Your task to perform on an android device: Open Wikipedia Image 0: 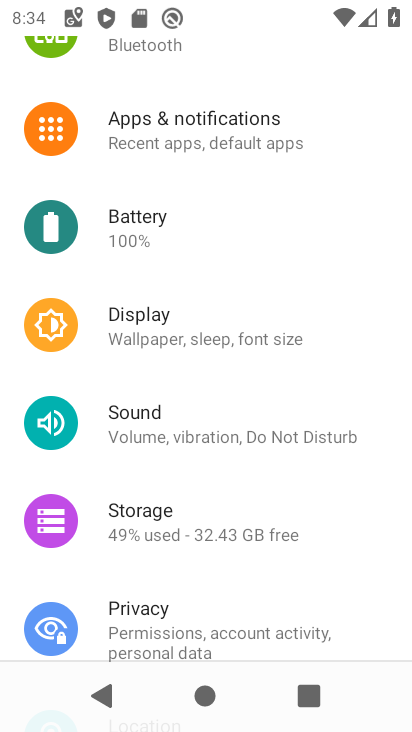
Step 0: press home button
Your task to perform on an android device: Open Wikipedia Image 1: 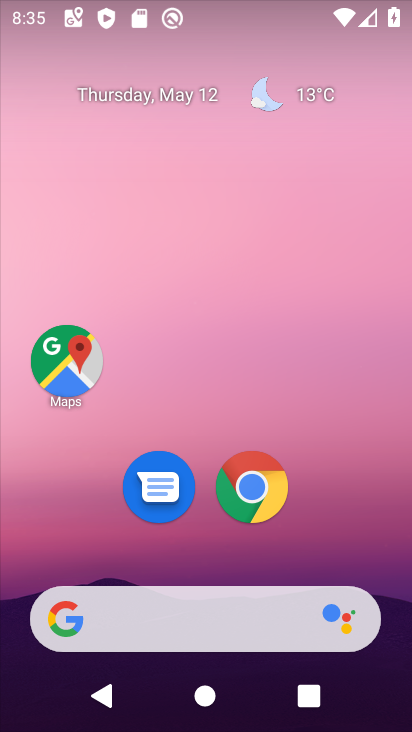
Step 1: click (259, 501)
Your task to perform on an android device: Open Wikipedia Image 2: 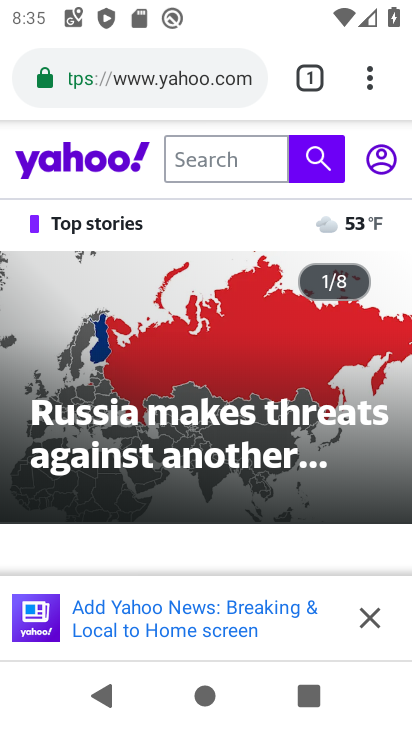
Step 2: click (121, 84)
Your task to perform on an android device: Open Wikipedia Image 3: 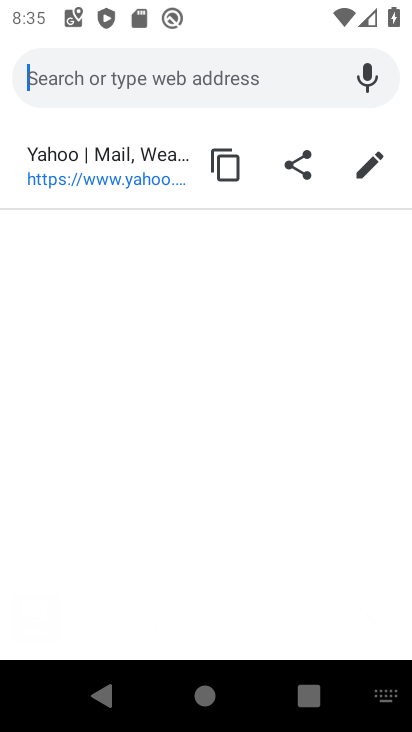
Step 3: type "wikipedia"
Your task to perform on an android device: Open Wikipedia Image 4: 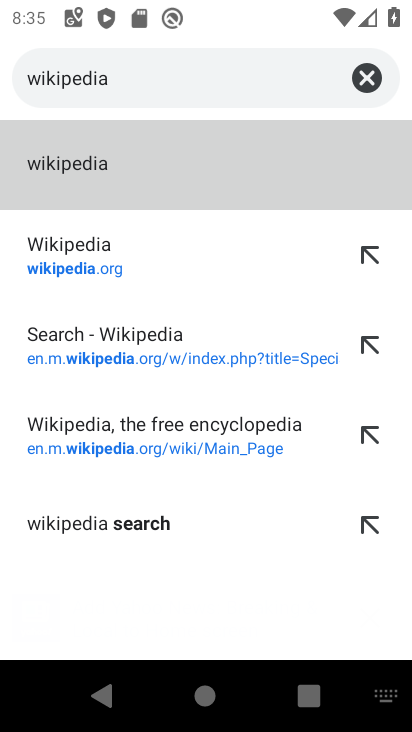
Step 4: click (50, 161)
Your task to perform on an android device: Open Wikipedia Image 5: 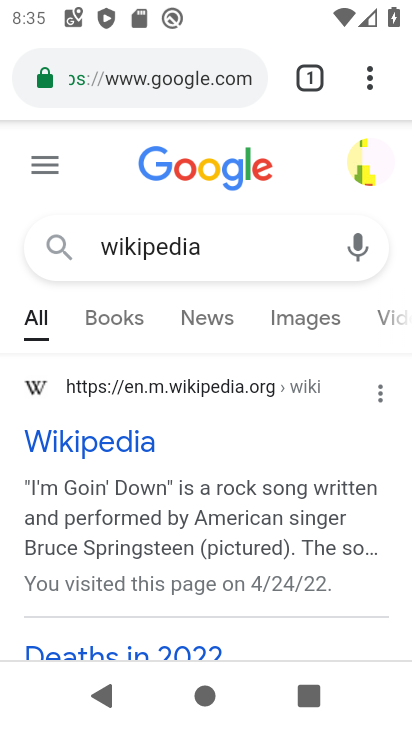
Step 5: click (101, 443)
Your task to perform on an android device: Open Wikipedia Image 6: 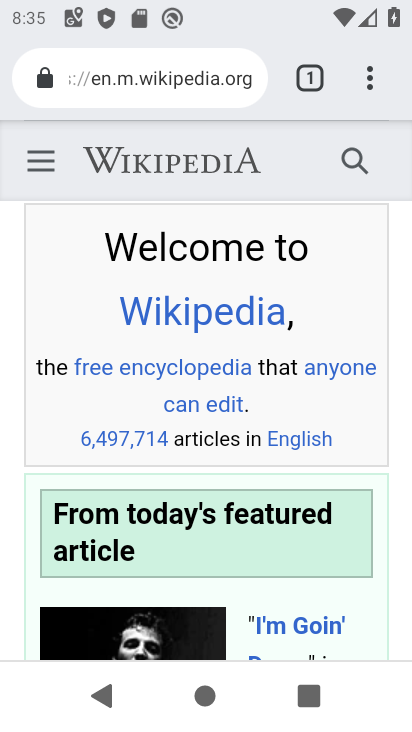
Step 6: task complete